Your task to perform on an android device: Go to display settings Image 0: 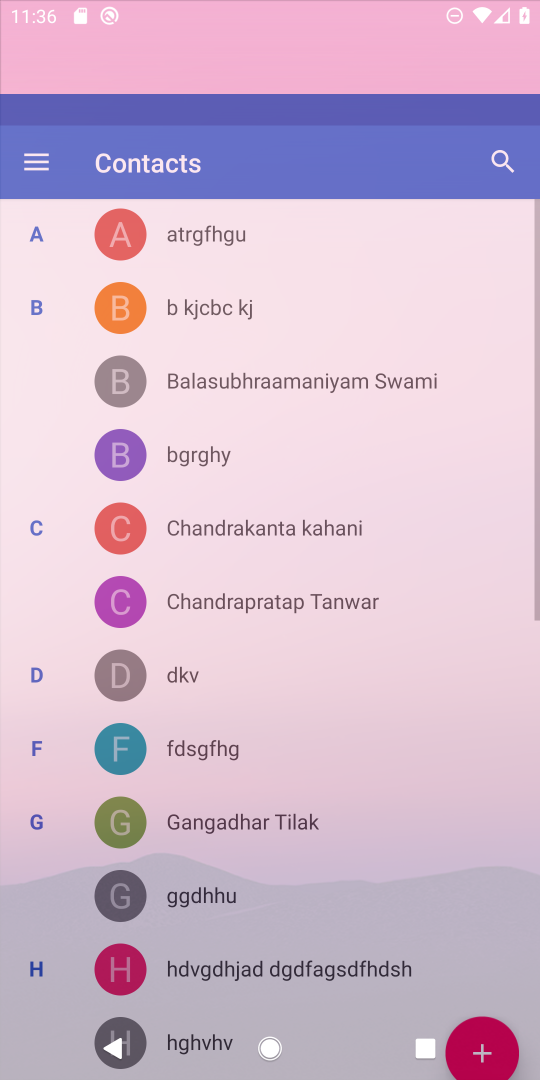
Step 0: press back button
Your task to perform on an android device: Go to display settings Image 1: 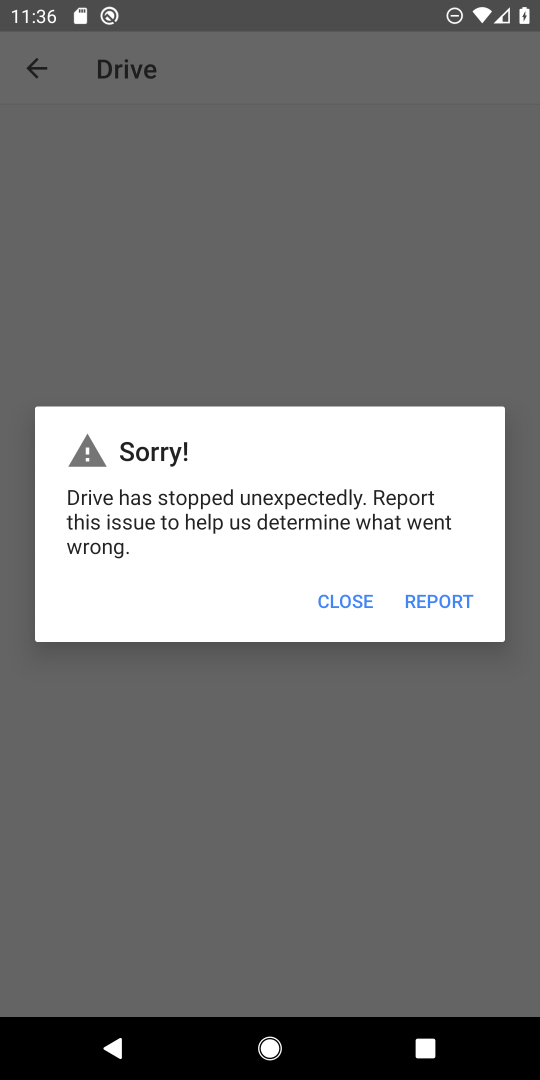
Step 1: click (360, 593)
Your task to perform on an android device: Go to display settings Image 2: 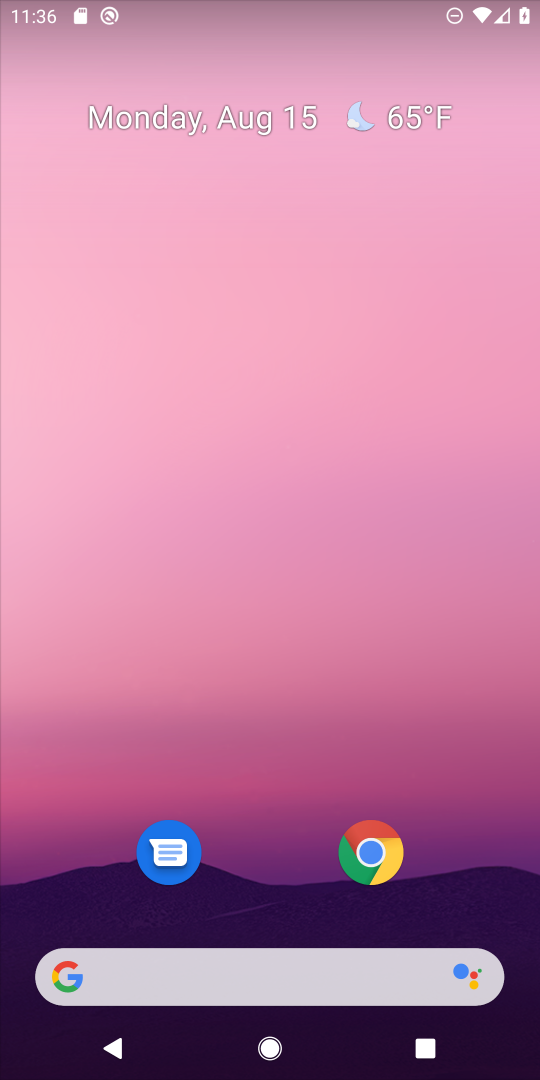
Step 2: press back button
Your task to perform on an android device: Go to display settings Image 3: 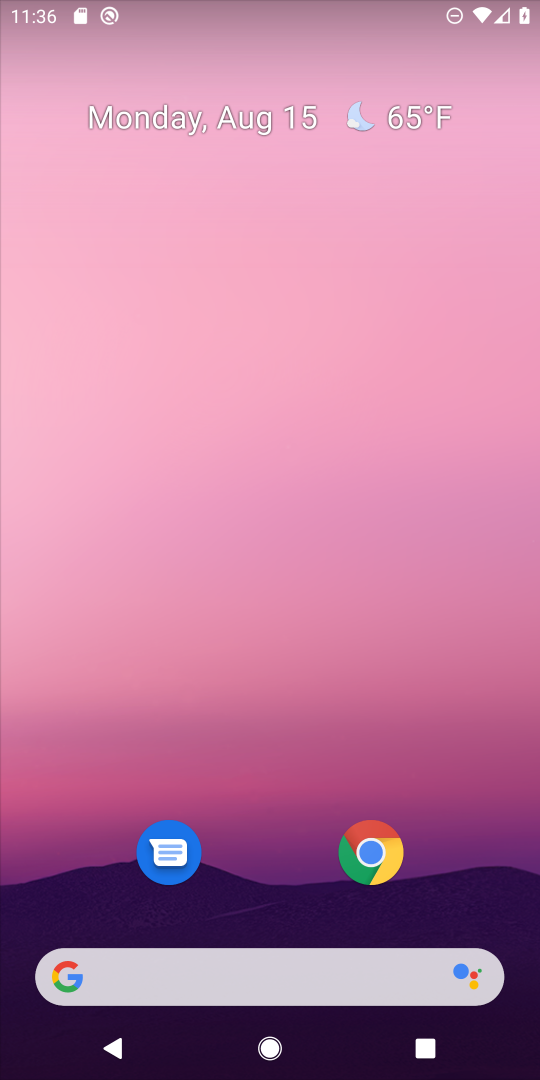
Step 3: drag from (264, 820) to (362, 0)
Your task to perform on an android device: Go to display settings Image 4: 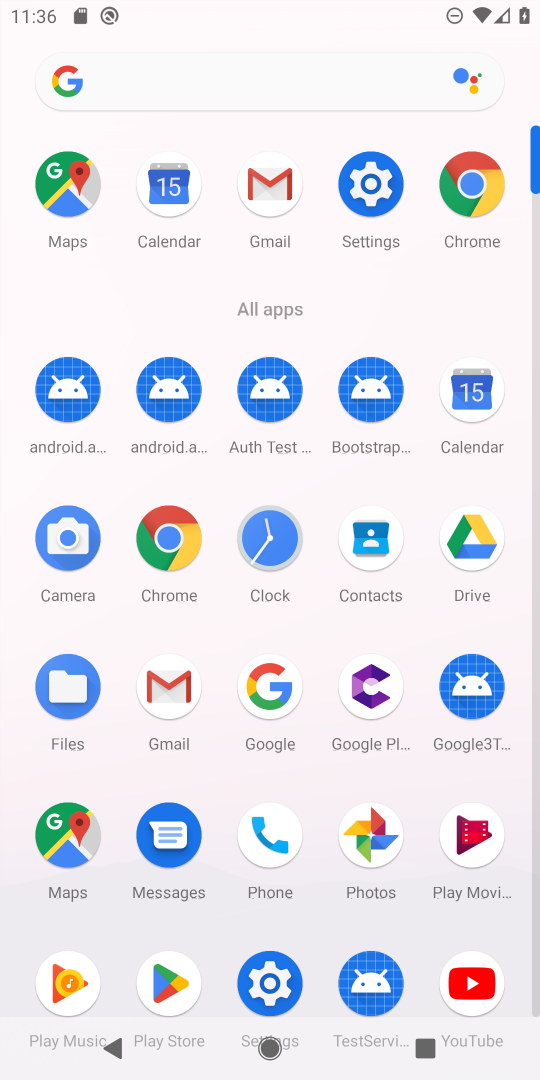
Step 4: click (365, 187)
Your task to perform on an android device: Go to display settings Image 5: 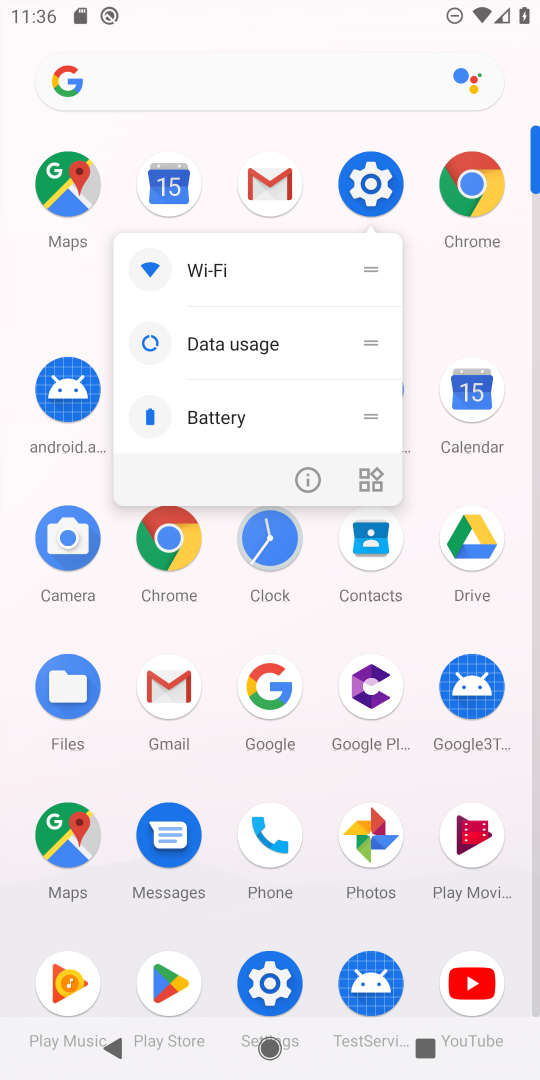
Step 5: click (368, 188)
Your task to perform on an android device: Go to display settings Image 6: 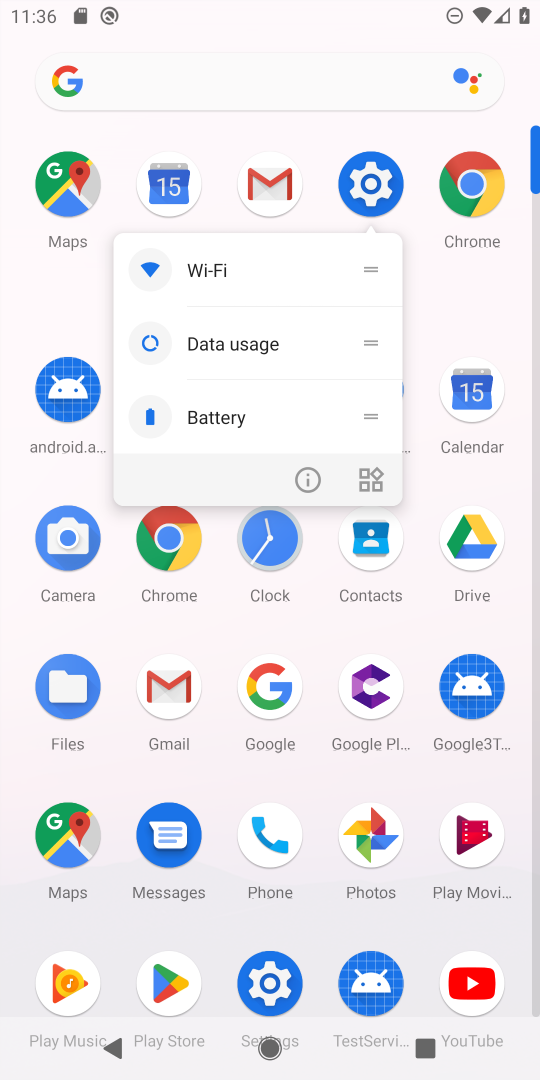
Step 6: click (397, 195)
Your task to perform on an android device: Go to display settings Image 7: 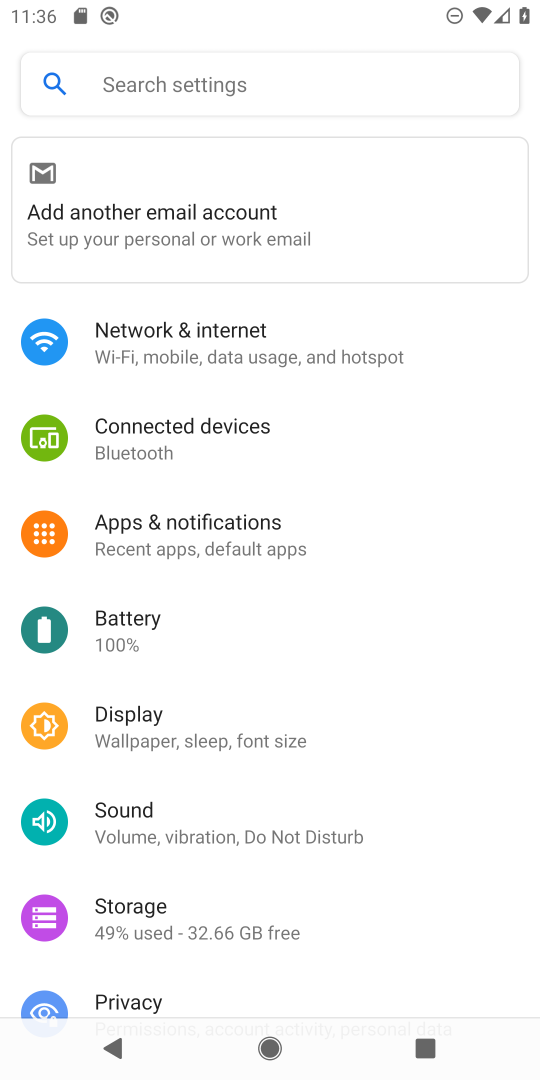
Step 7: click (108, 733)
Your task to perform on an android device: Go to display settings Image 8: 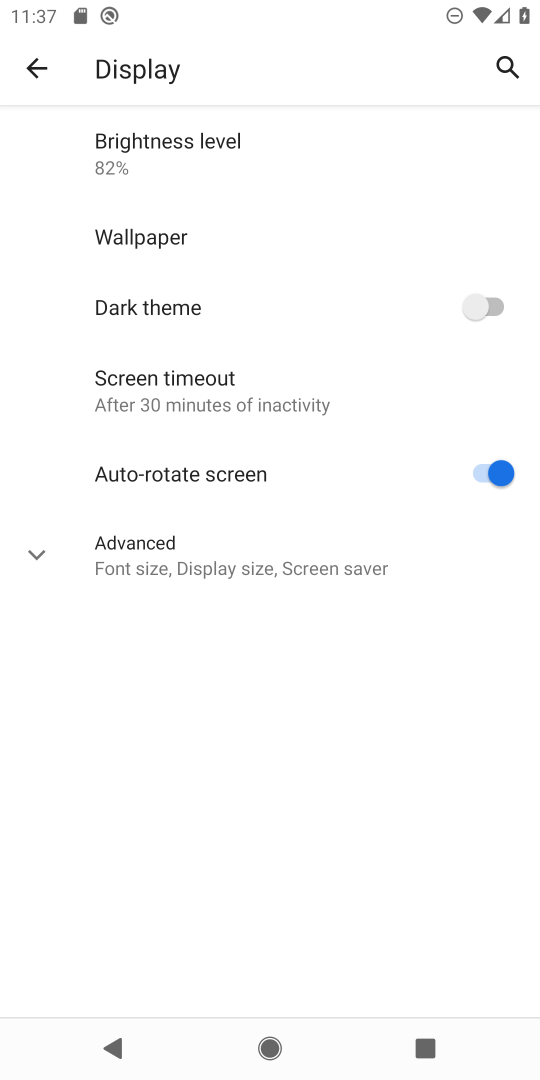
Step 8: task complete